Your task to perform on an android device: Open my contact list Image 0: 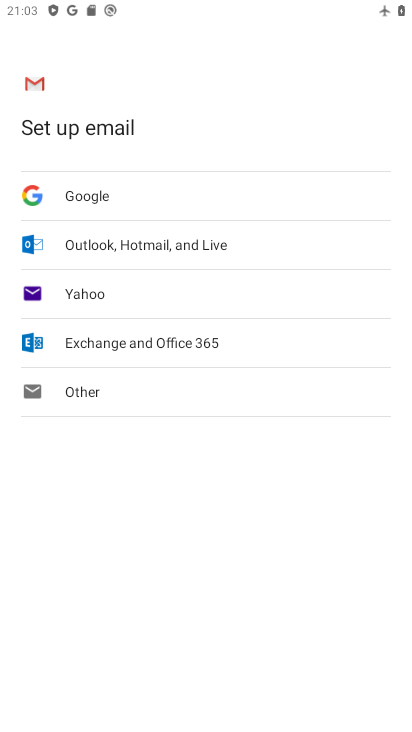
Step 0: press home button
Your task to perform on an android device: Open my contact list Image 1: 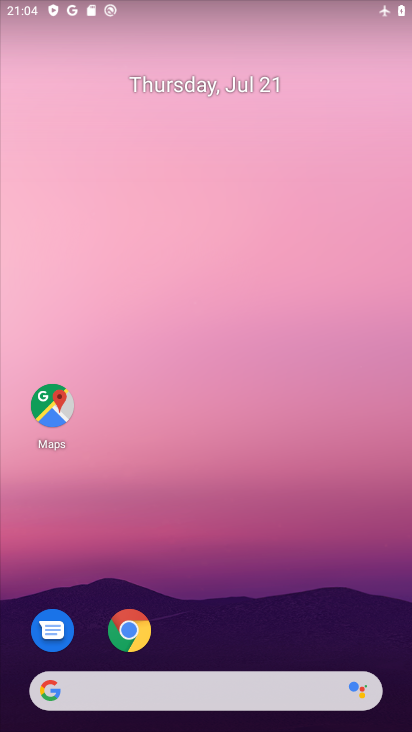
Step 1: drag from (236, 624) to (224, 94)
Your task to perform on an android device: Open my contact list Image 2: 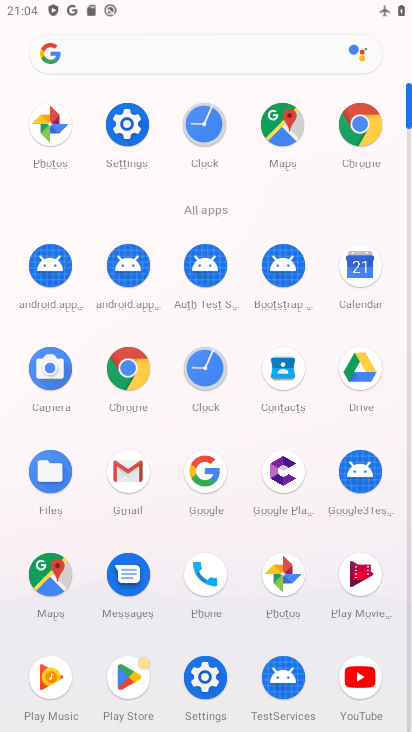
Step 2: click (288, 369)
Your task to perform on an android device: Open my contact list Image 3: 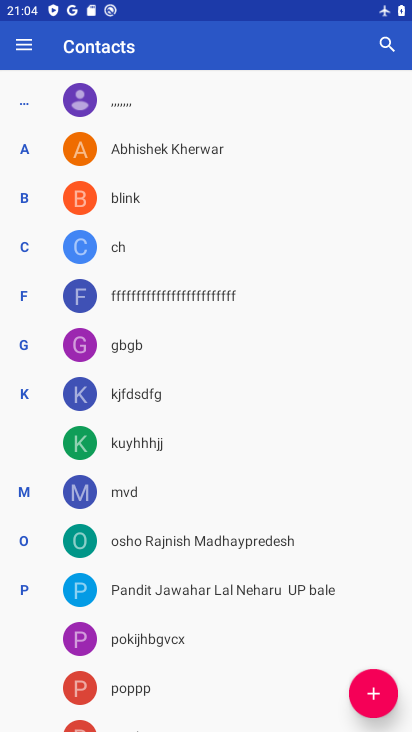
Step 3: task complete